Your task to perform on an android device: Open the Play Movies app and select the watchlist tab. Image 0: 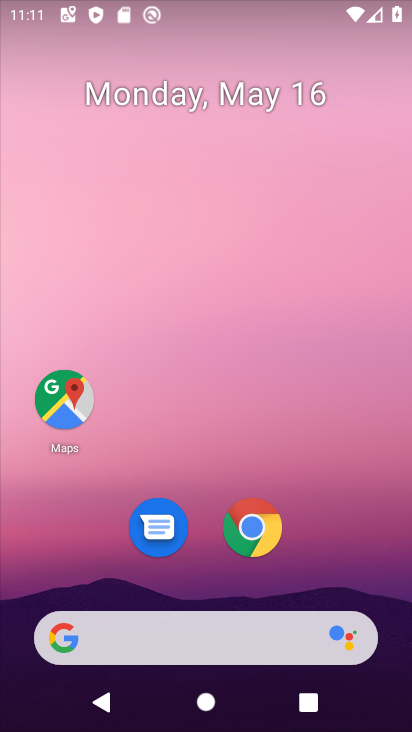
Step 0: drag from (249, 648) to (247, 247)
Your task to perform on an android device: Open the Play Movies app and select the watchlist tab. Image 1: 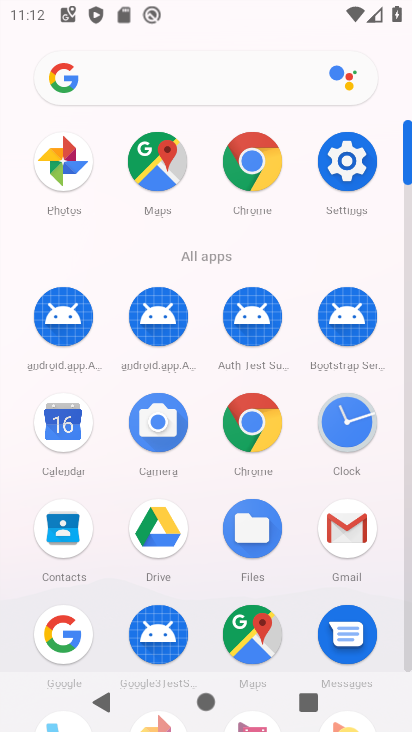
Step 1: drag from (207, 568) to (288, 364)
Your task to perform on an android device: Open the Play Movies app and select the watchlist tab. Image 2: 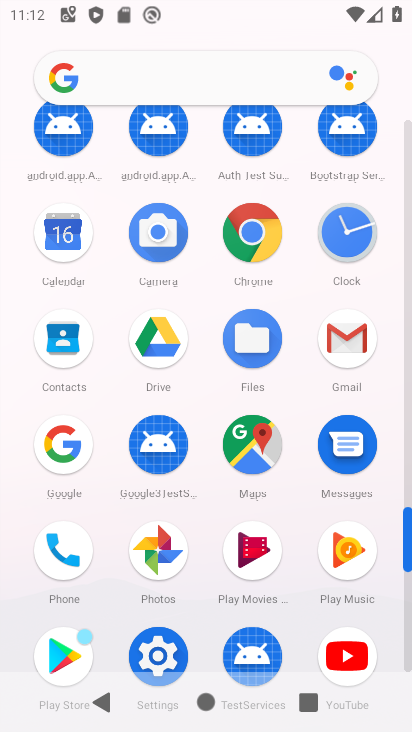
Step 2: click (268, 561)
Your task to perform on an android device: Open the Play Movies app and select the watchlist tab. Image 3: 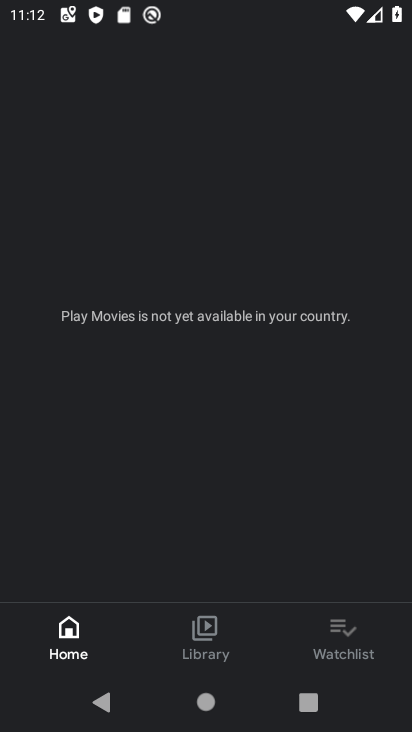
Step 3: click (348, 622)
Your task to perform on an android device: Open the Play Movies app and select the watchlist tab. Image 4: 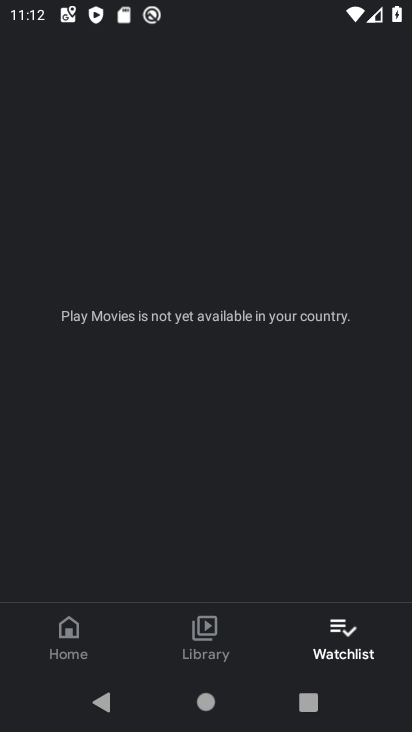
Step 4: task complete